Your task to perform on an android device: change notifications settings Image 0: 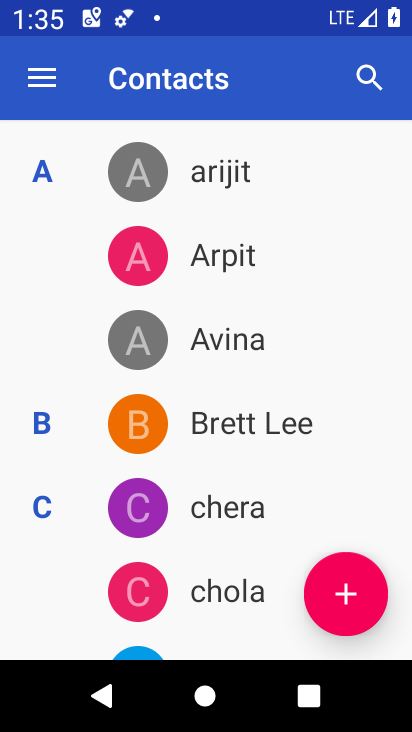
Step 0: press home button
Your task to perform on an android device: change notifications settings Image 1: 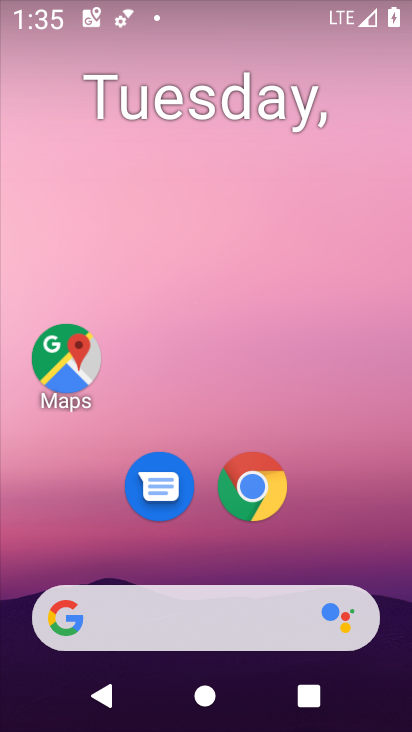
Step 1: drag from (373, 527) to (356, 103)
Your task to perform on an android device: change notifications settings Image 2: 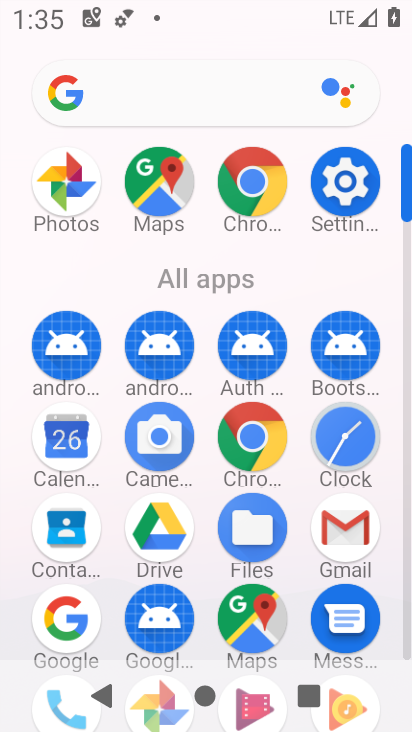
Step 2: click (363, 199)
Your task to perform on an android device: change notifications settings Image 3: 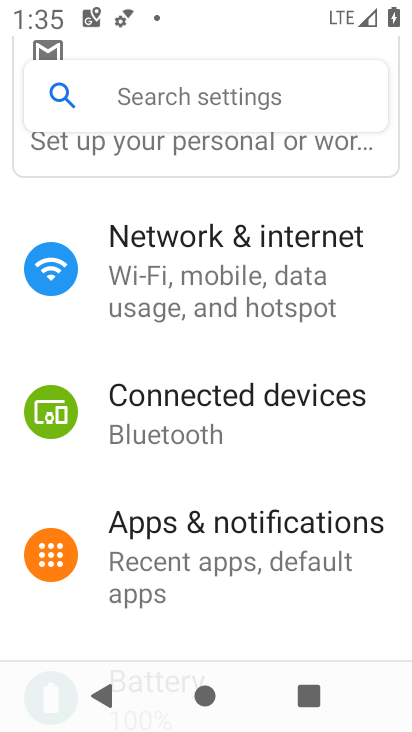
Step 3: drag from (371, 456) to (377, 382)
Your task to perform on an android device: change notifications settings Image 4: 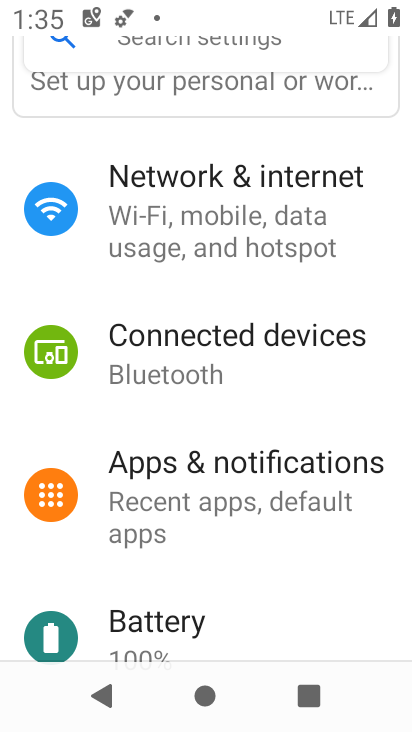
Step 4: drag from (350, 506) to (355, 403)
Your task to perform on an android device: change notifications settings Image 5: 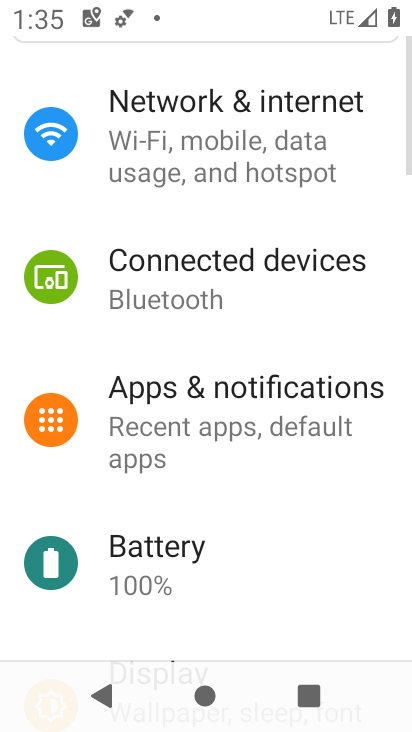
Step 5: drag from (344, 516) to (338, 425)
Your task to perform on an android device: change notifications settings Image 6: 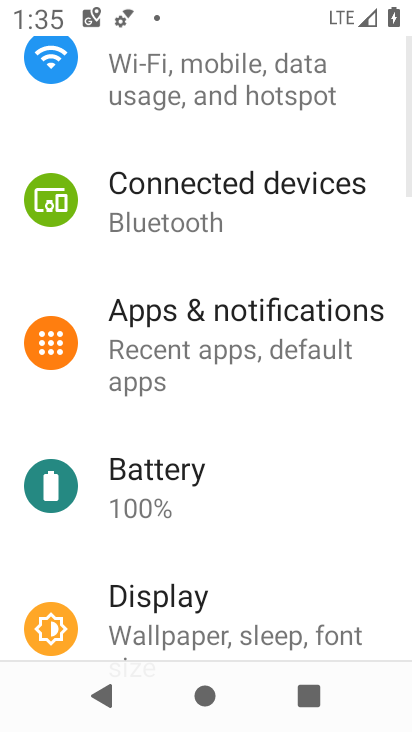
Step 6: drag from (335, 535) to (325, 451)
Your task to perform on an android device: change notifications settings Image 7: 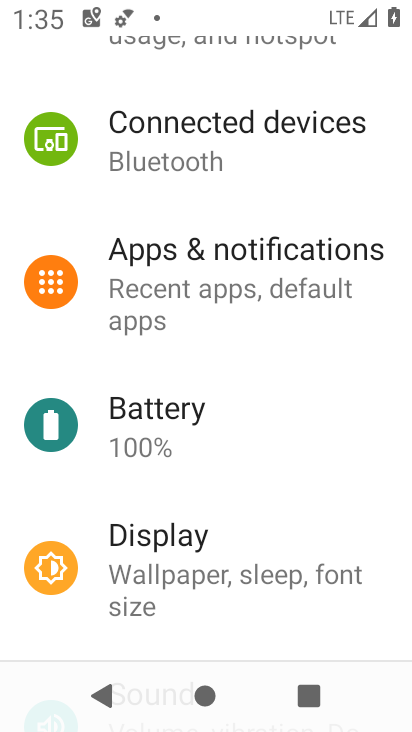
Step 7: drag from (330, 535) to (333, 454)
Your task to perform on an android device: change notifications settings Image 8: 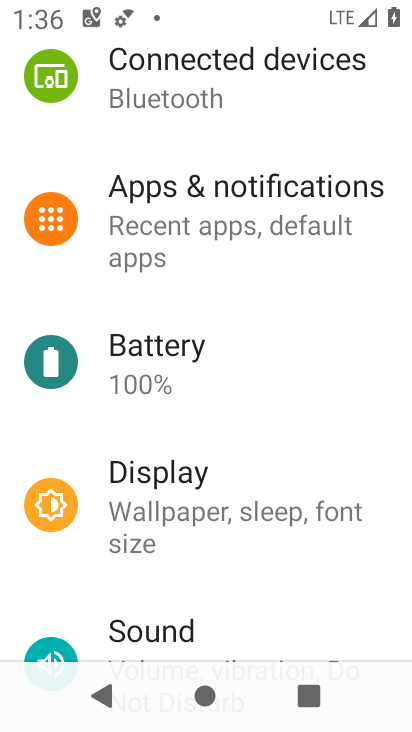
Step 8: click (290, 265)
Your task to perform on an android device: change notifications settings Image 9: 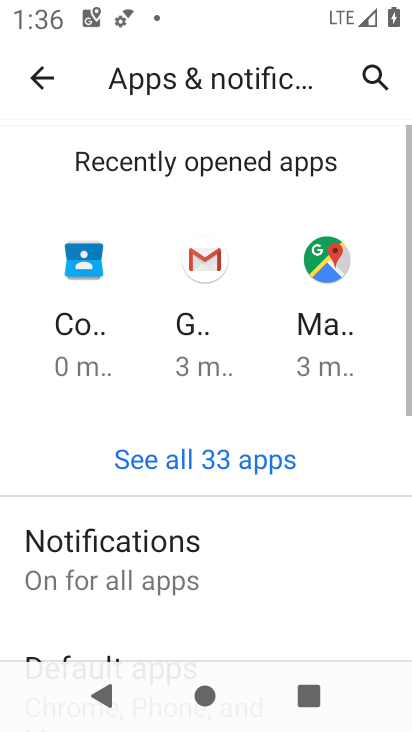
Step 9: drag from (274, 529) to (286, 437)
Your task to perform on an android device: change notifications settings Image 10: 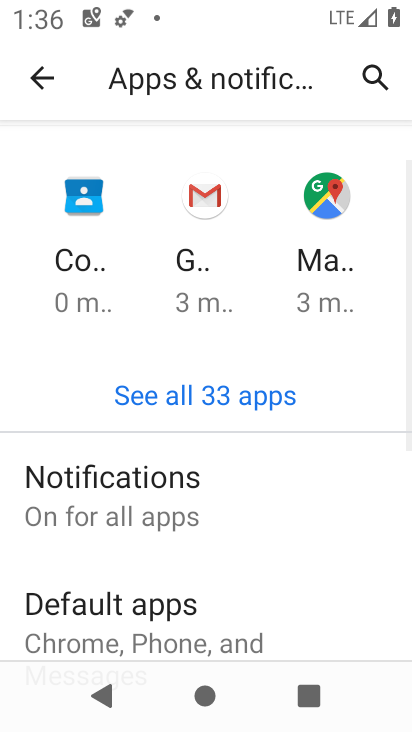
Step 10: drag from (266, 558) to (276, 452)
Your task to perform on an android device: change notifications settings Image 11: 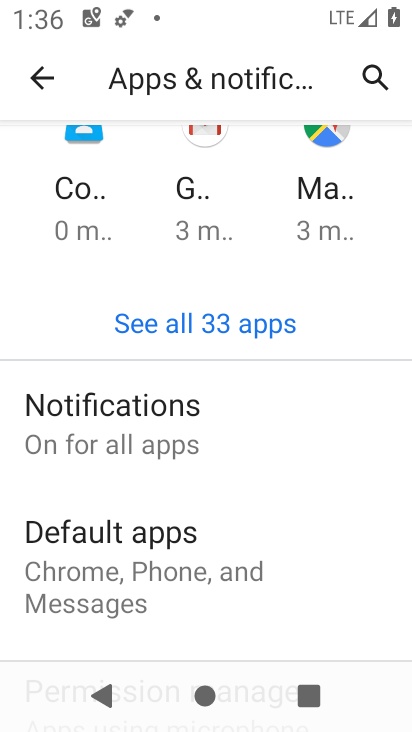
Step 11: drag from (250, 499) to (247, 410)
Your task to perform on an android device: change notifications settings Image 12: 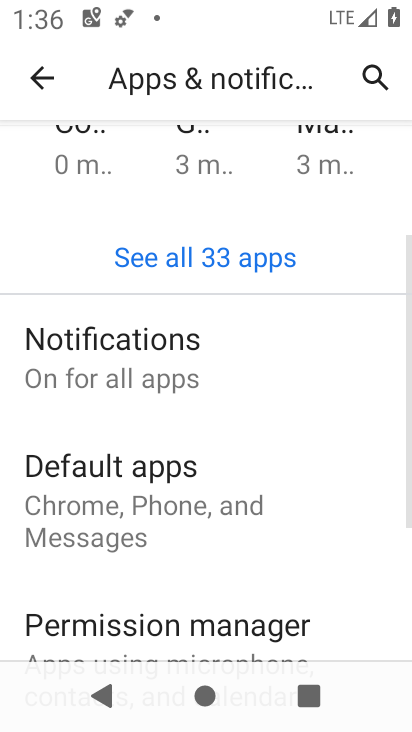
Step 12: click (220, 355)
Your task to perform on an android device: change notifications settings Image 13: 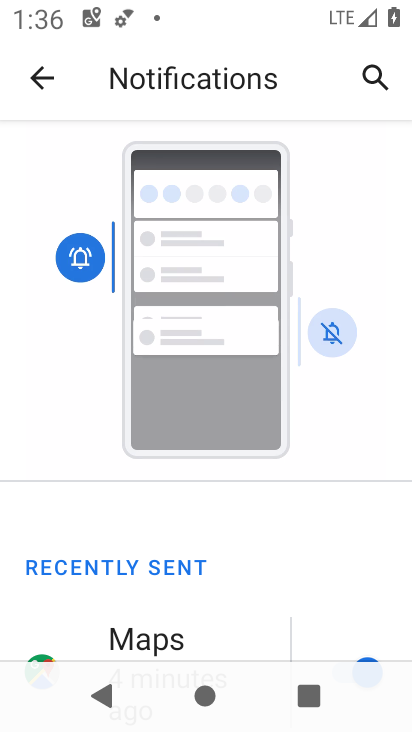
Step 13: drag from (288, 545) to (294, 483)
Your task to perform on an android device: change notifications settings Image 14: 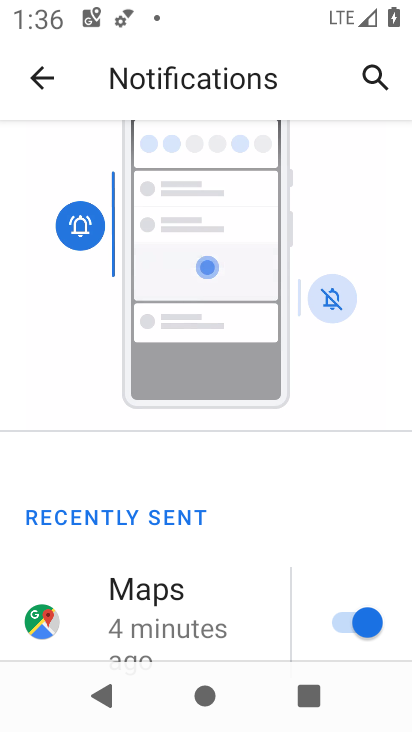
Step 14: drag from (252, 599) to (251, 470)
Your task to perform on an android device: change notifications settings Image 15: 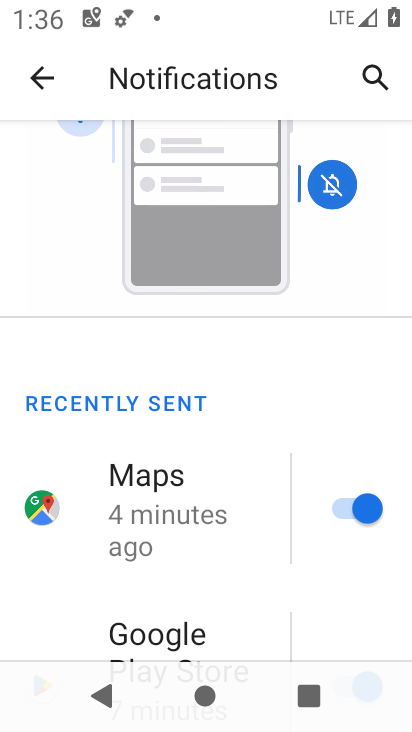
Step 15: drag from (251, 617) to (249, 460)
Your task to perform on an android device: change notifications settings Image 16: 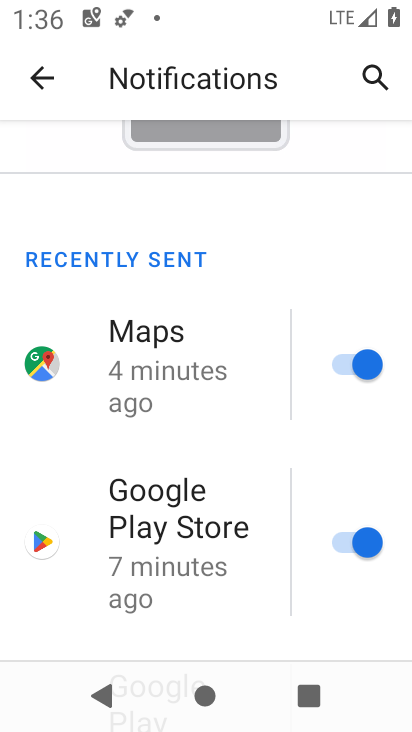
Step 16: drag from (234, 628) to (238, 498)
Your task to perform on an android device: change notifications settings Image 17: 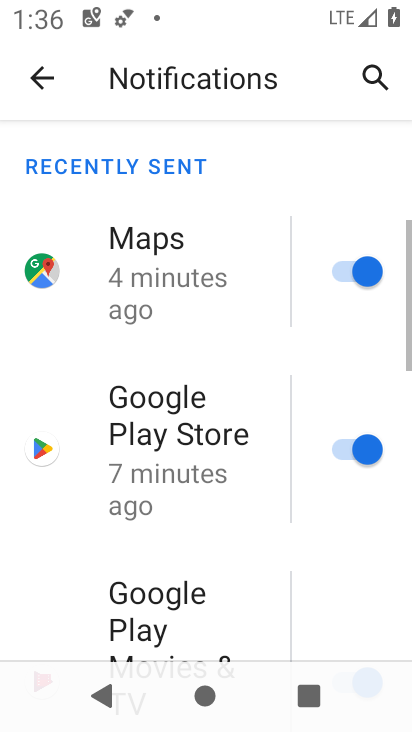
Step 17: drag from (243, 574) to (247, 465)
Your task to perform on an android device: change notifications settings Image 18: 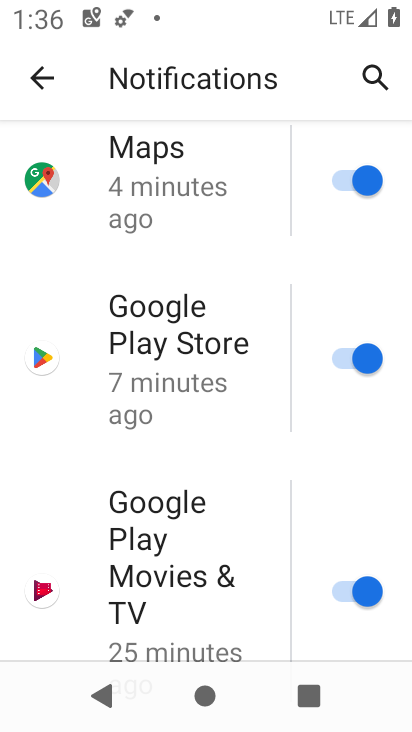
Step 18: click (355, 190)
Your task to perform on an android device: change notifications settings Image 19: 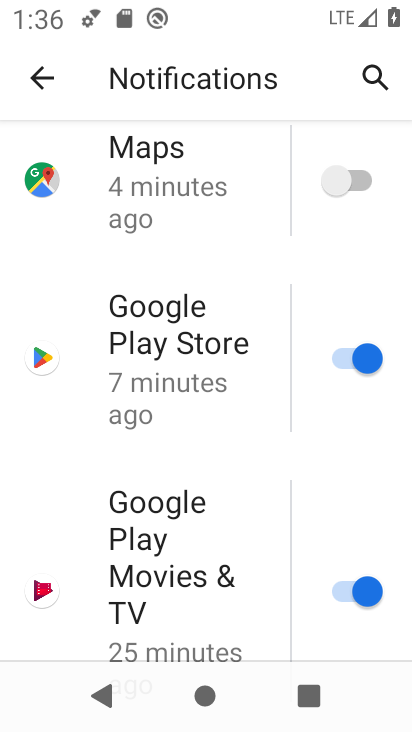
Step 19: click (348, 355)
Your task to perform on an android device: change notifications settings Image 20: 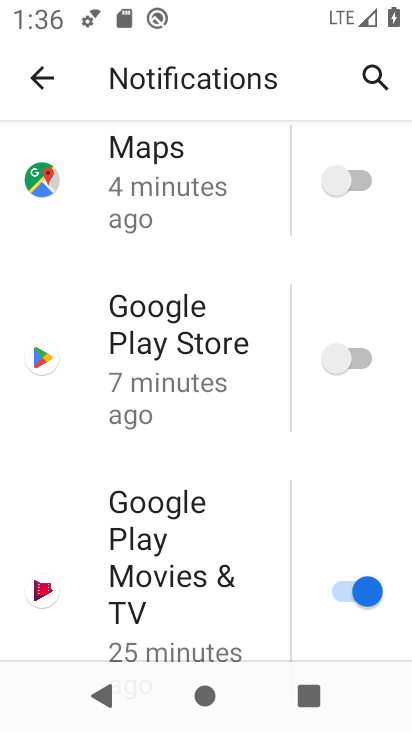
Step 20: click (361, 595)
Your task to perform on an android device: change notifications settings Image 21: 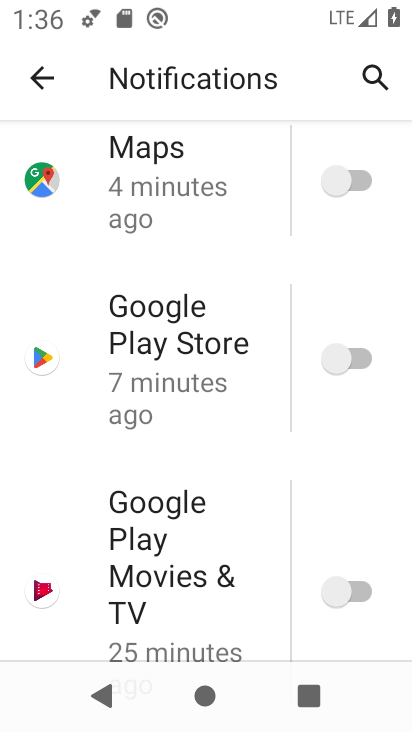
Step 21: task complete